Your task to perform on an android device: toggle pop-ups in chrome Image 0: 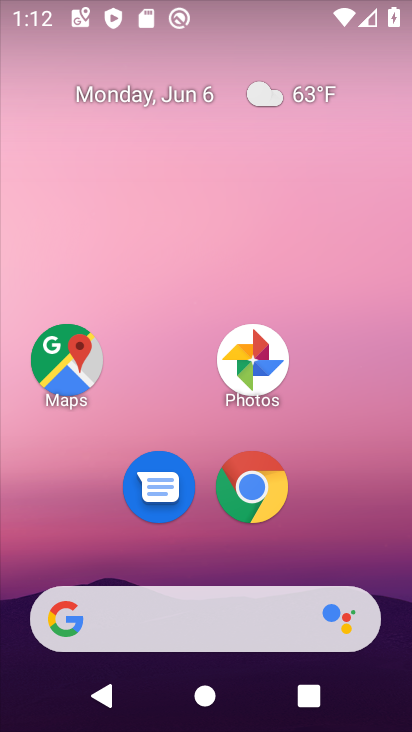
Step 0: click (270, 511)
Your task to perform on an android device: toggle pop-ups in chrome Image 1: 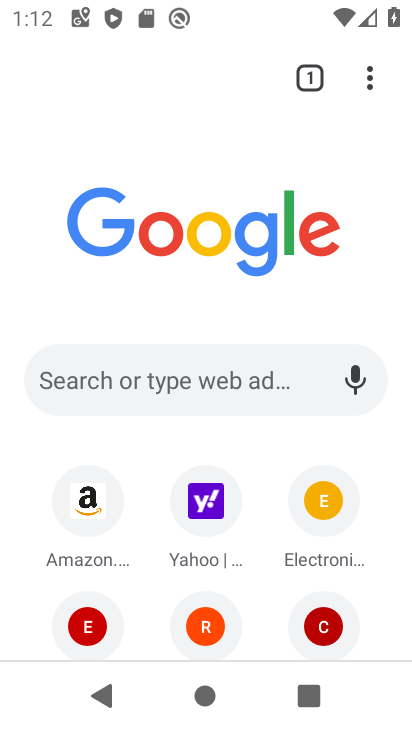
Step 1: drag from (376, 79) to (244, 553)
Your task to perform on an android device: toggle pop-ups in chrome Image 2: 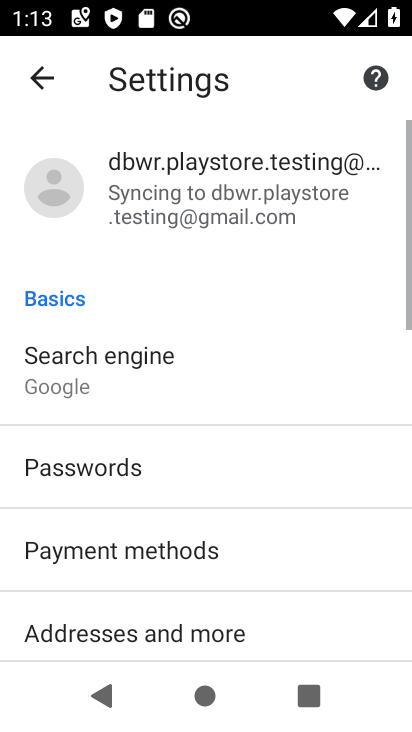
Step 2: drag from (121, 594) to (259, 124)
Your task to perform on an android device: toggle pop-ups in chrome Image 3: 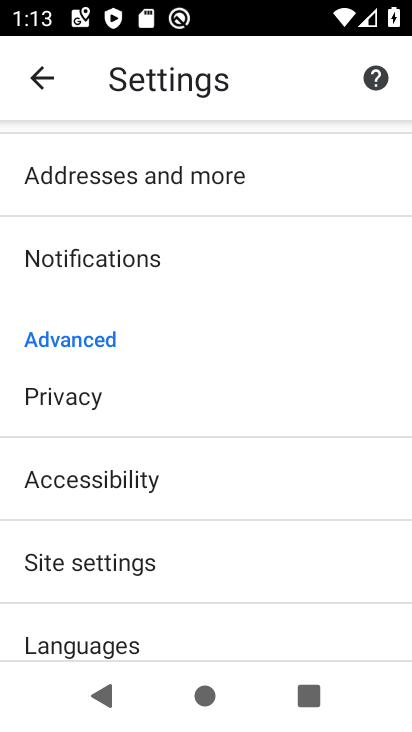
Step 3: click (133, 585)
Your task to perform on an android device: toggle pop-ups in chrome Image 4: 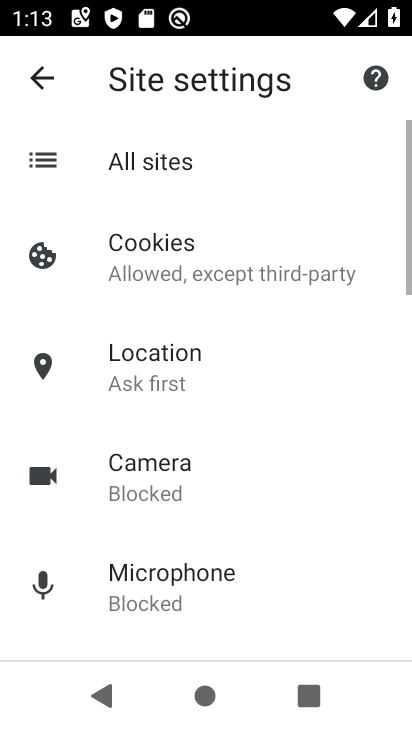
Step 4: drag from (140, 575) to (245, 268)
Your task to perform on an android device: toggle pop-ups in chrome Image 5: 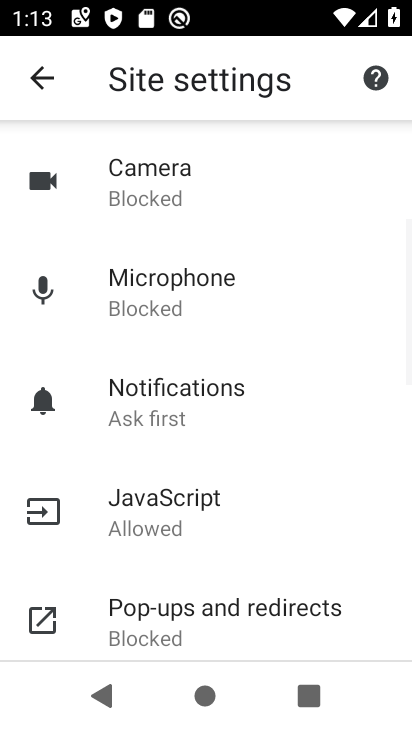
Step 5: drag from (200, 550) to (264, 342)
Your task to perform on an android device: toggle pop-ups in chrome Image 6: 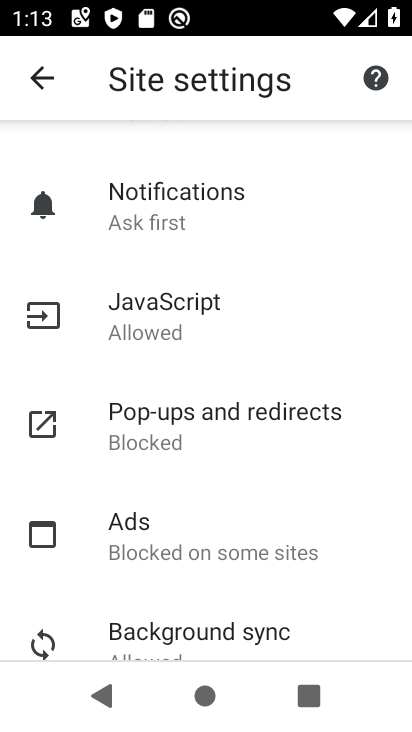
Step 6: click (239, 402)
Your task to perform on an android device: toggle pop-ups in chrome Image 7: 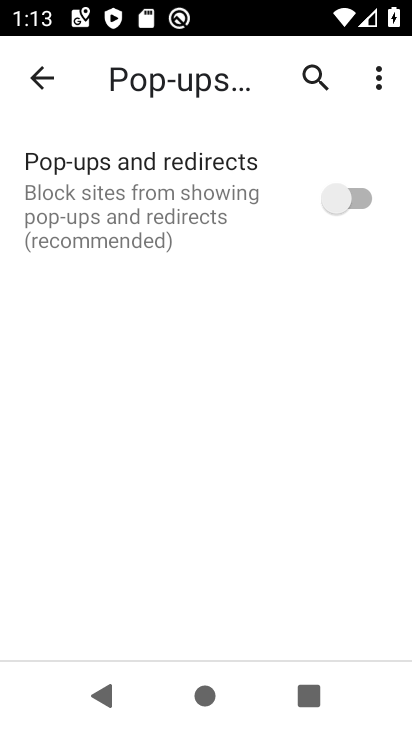
Step 7: click (375, 194)
Your task to perform on an android device: toggle pop-ups in chrome Image 8: 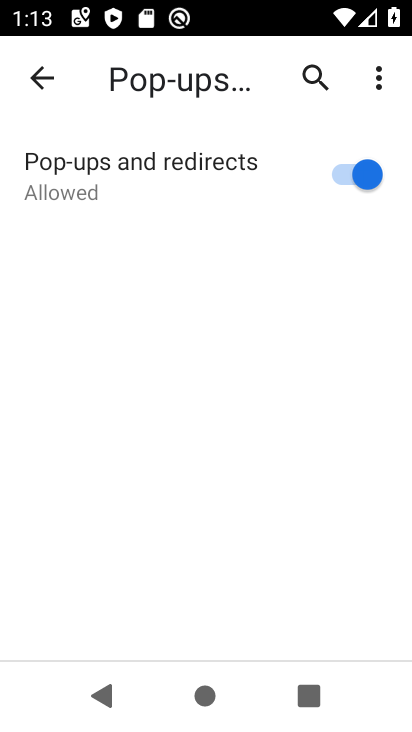
Step 8: task complete